Your task to perform on an android device: Clear the cart on costco.com. Add usb-a to the cart on costco.com Image 0: 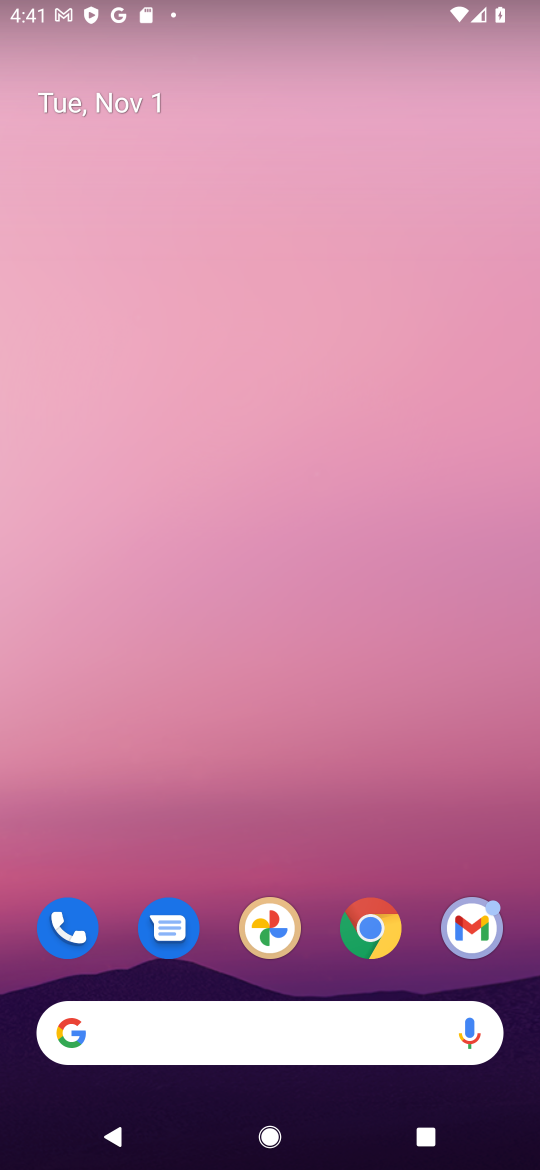
Step 0: click (369, 945)
Your task to perform on an android device: Clear the cart on costco.com. Add usb-a to the cart on costco.com Image 1: 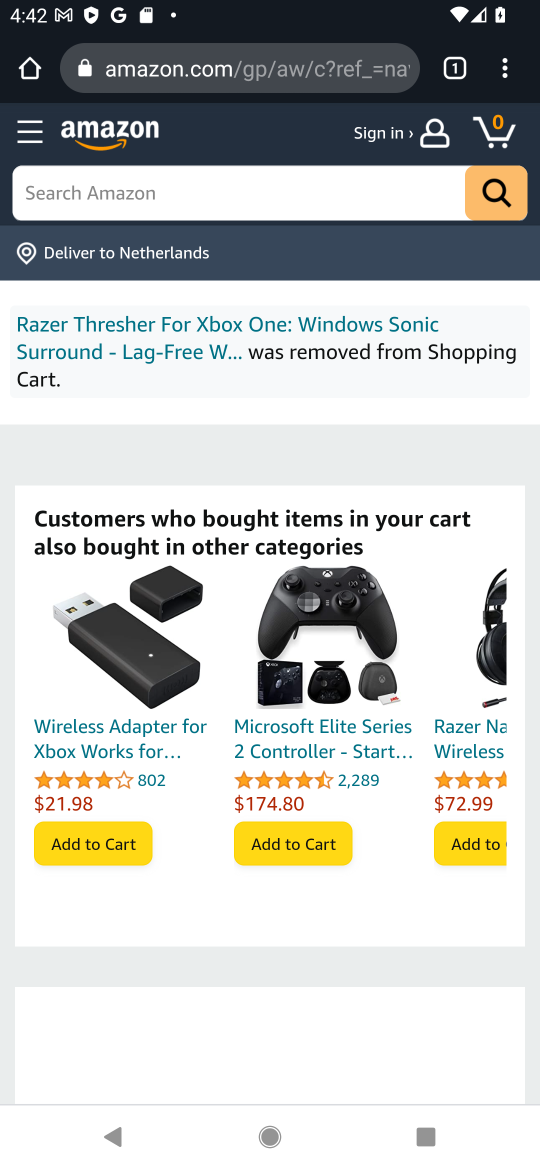
Step 1: click (273, 58)
Your task to perform on an android device: Clear the cart on costco.com. Add usb-a to the cart on costco.com Image 2: 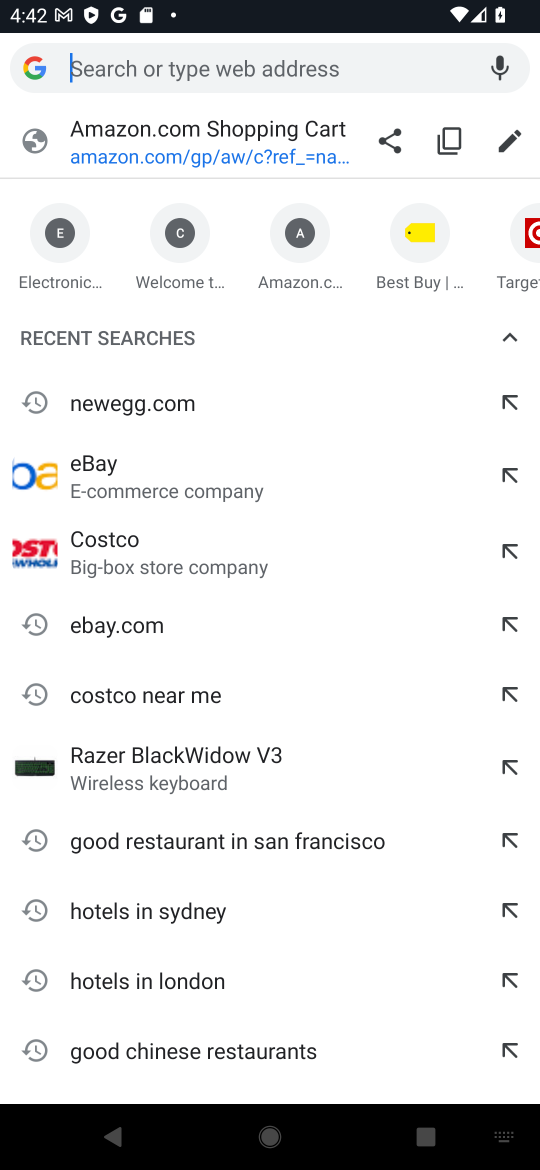
Step 2: type "costco.com"
Your task to perform on an android device: Clear the cart on costco.com. Add usb-a to the cart on costco.com Image 3: 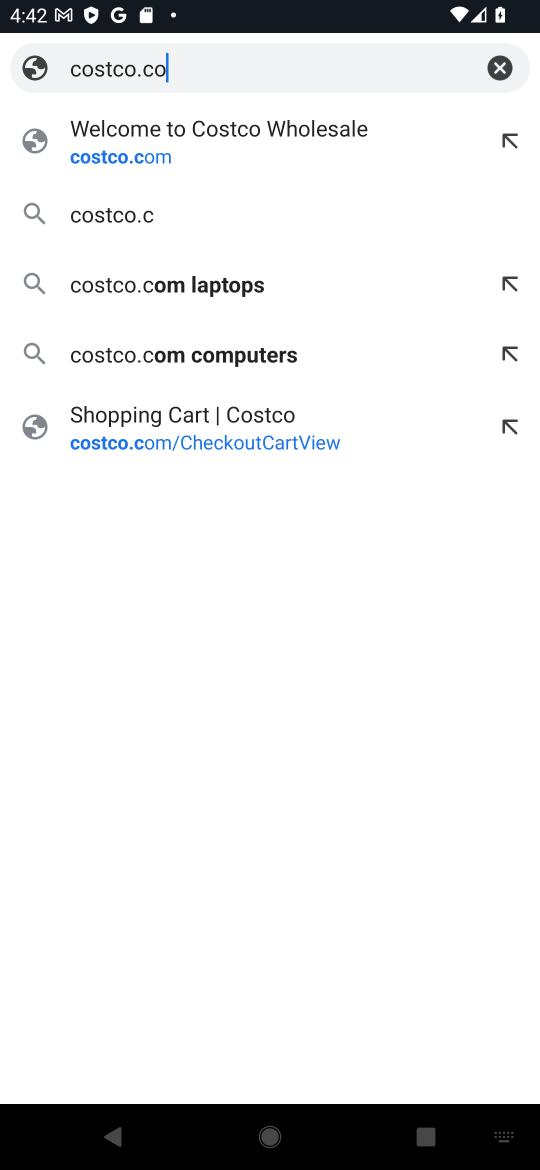
Step 3: type ""
Your task to perform on an android device: Clear the cart on costco.com. Add usb-a to the cart on costco.com Image 4: 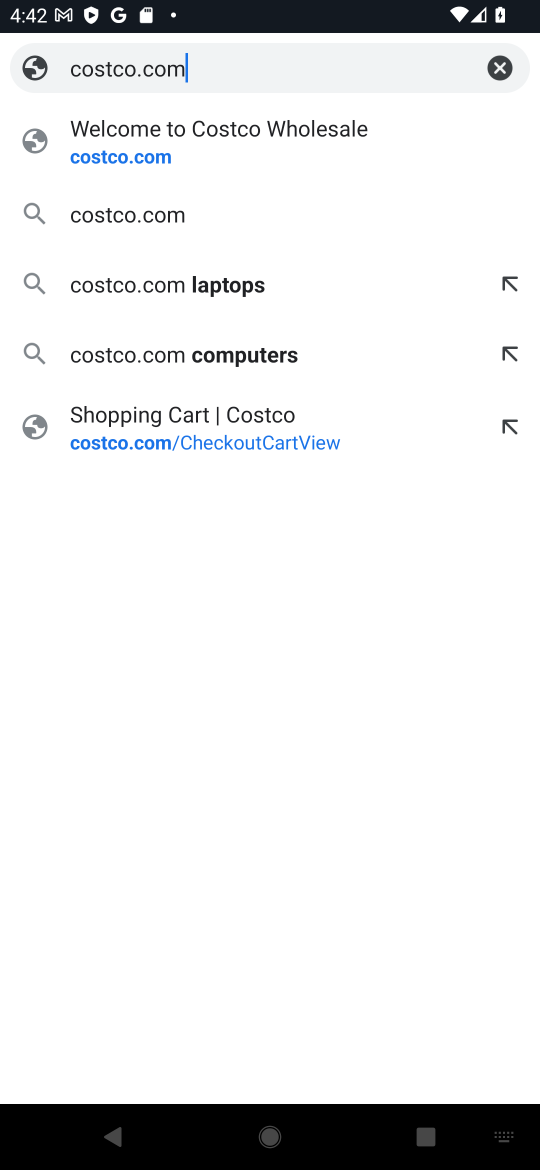
Step 4: press enter
Your task to perform on an android device: Clear the cart on costco.com. Add usb-a to the cart on costco.com Image 5: 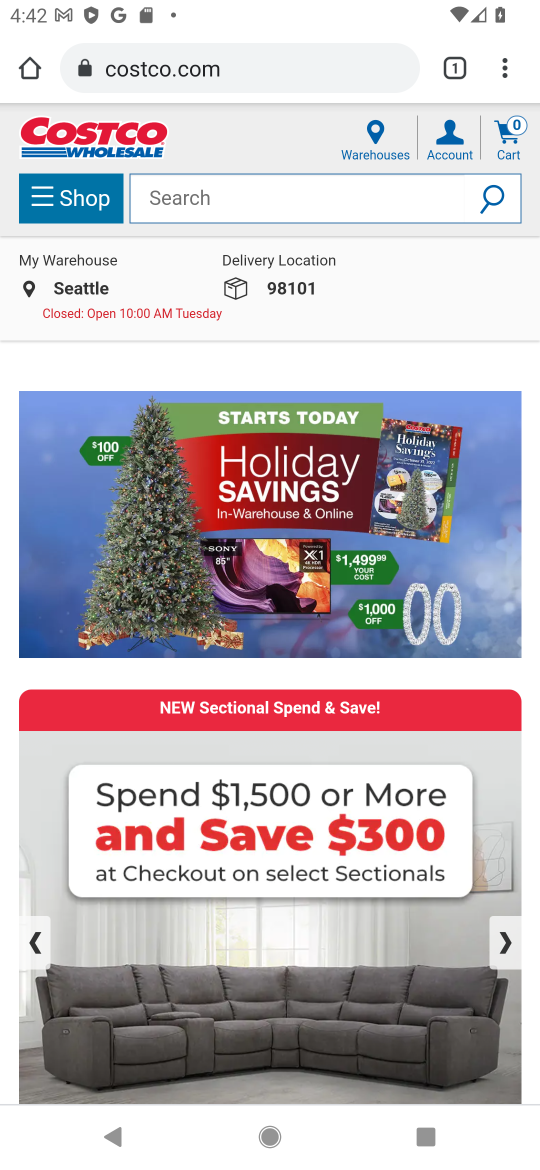
Step 5: click (291, 202)
Your task to perform on an android device: Clear the cart on costco.com. Add usb-a to the cart on costco.com Image 6: 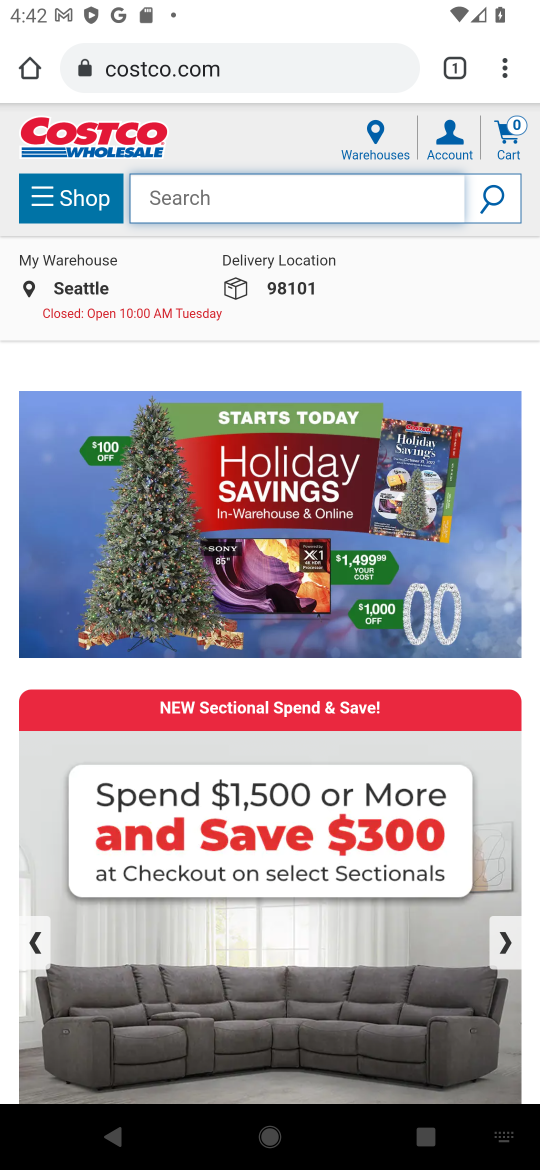
Step 6: type "usb-a"
Your task to perform on an android device: Clear the cart on costco.com. Add usb-a to the cart on costco.com Image 7: 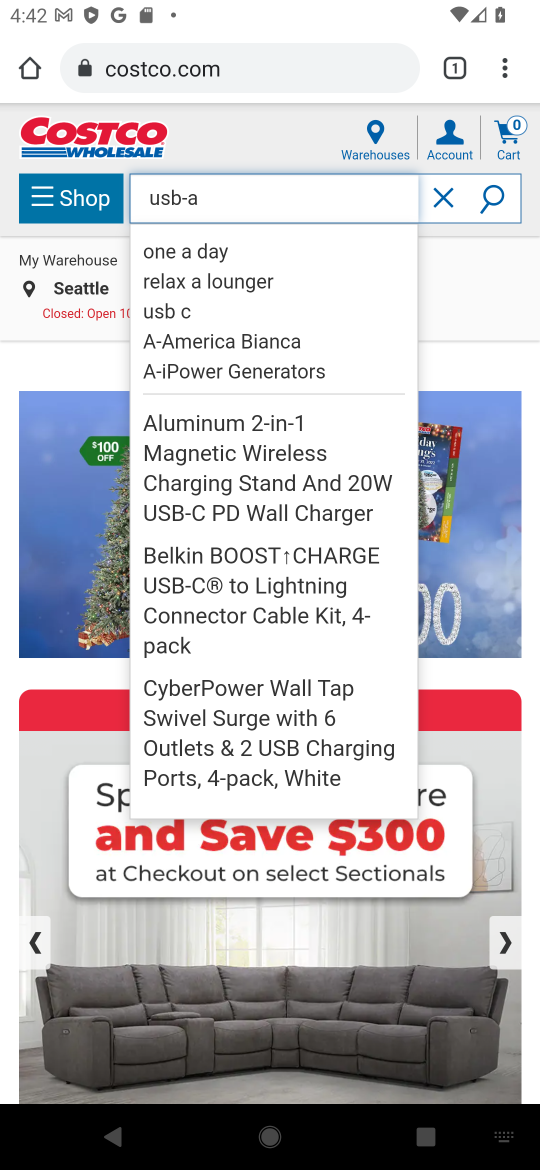
Step 7: press enter
Your task to perform on an android device: Clear the cart on costco.com. Add usb-a to the cart on costco.com Image 8: 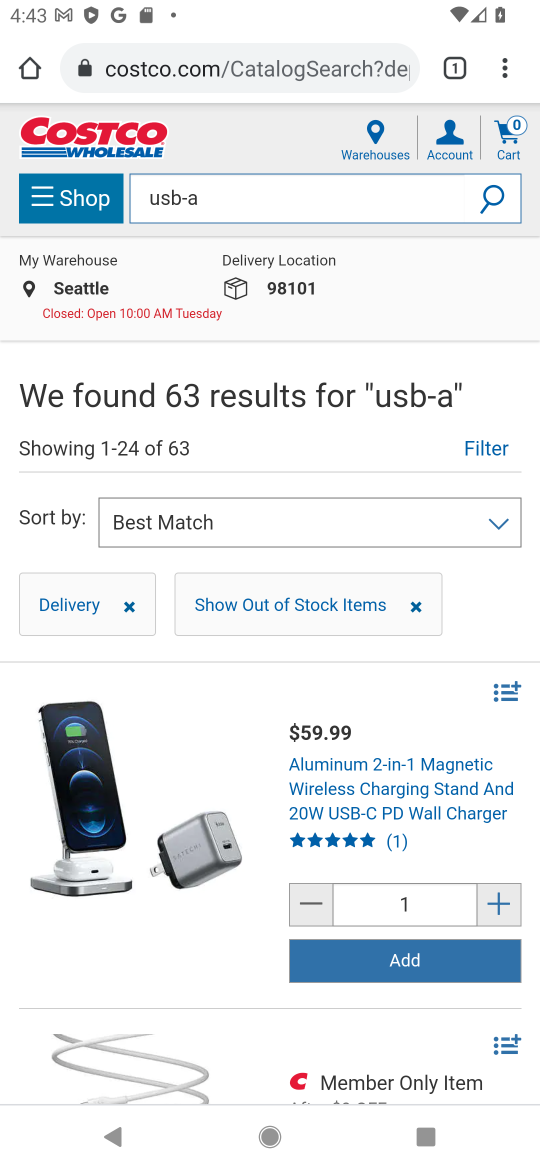
Step 8: drag from (238, 919) to (384, 333)
Your task to perform on an android device: Clear the cart on costco.com. Add usb-a to the cart on costco.com Image 9: 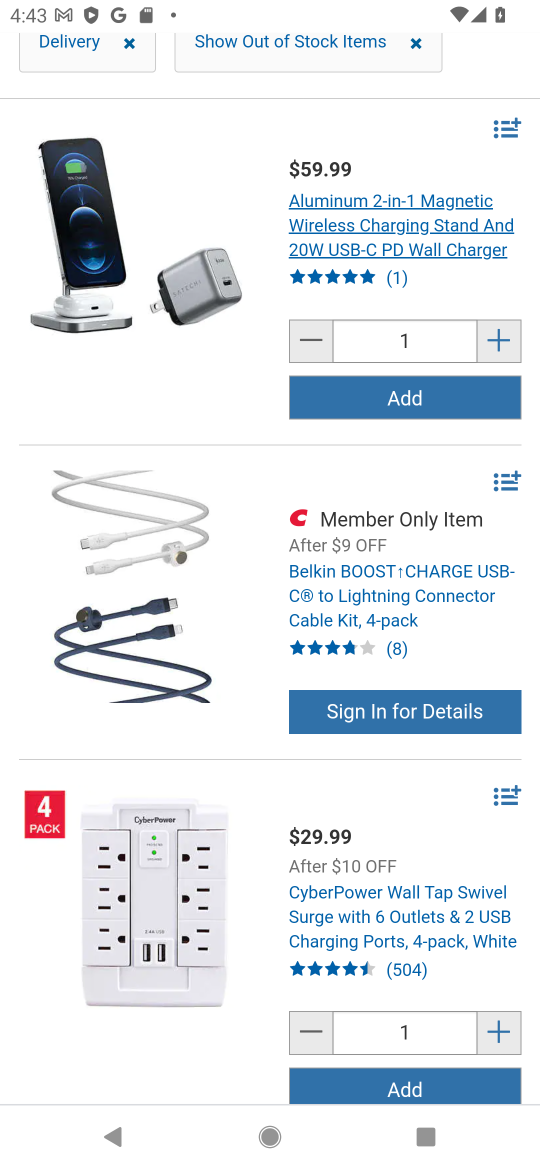
Step 9: drag from (235, 552) to (240, 927)
Your task to perform on an android device: Clear the cart on costco.com. Add usb-a to the cart on costco.com Image 10: 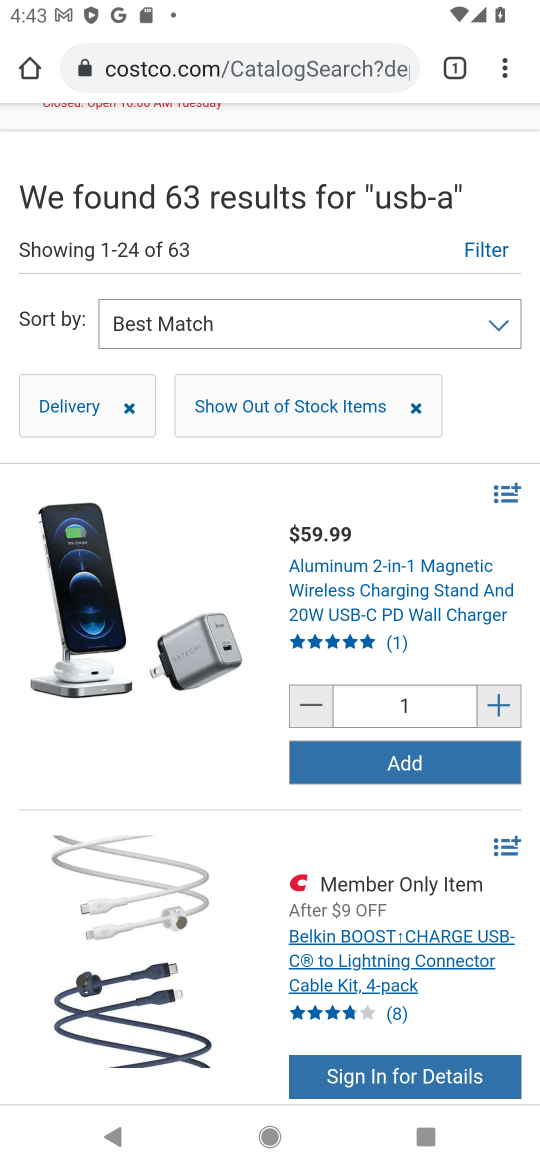
Step 10: click (412, 588)
Your task to perform on an android device: Clear the cart on costco.com. Add usb-a to the cart on costco.com Image 11: 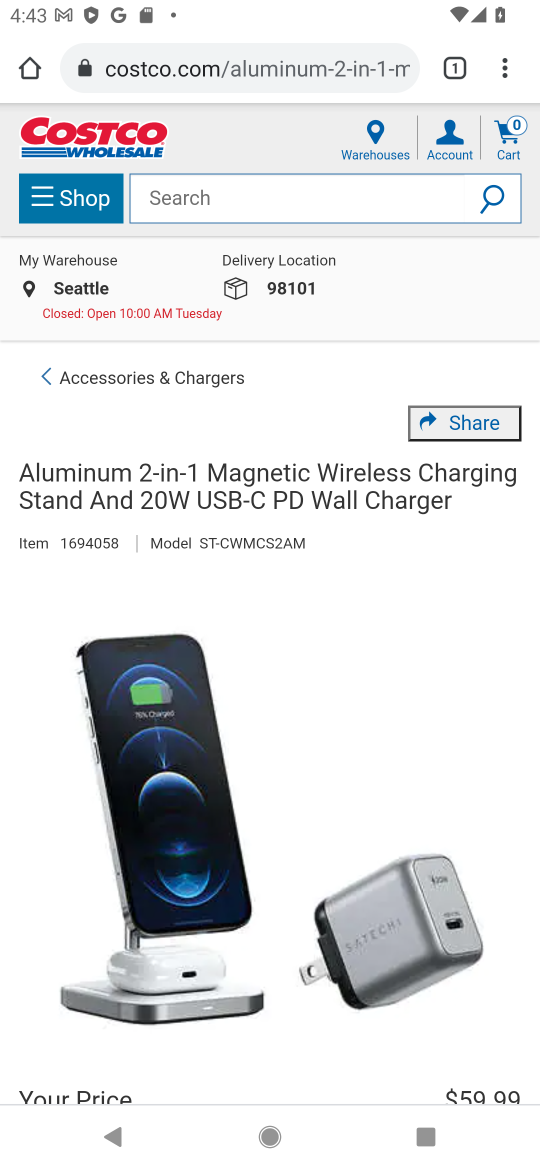
Step 11: task complete